Your task to perform on an android device: Search for flights from Mexico city to Zurich Image 0: 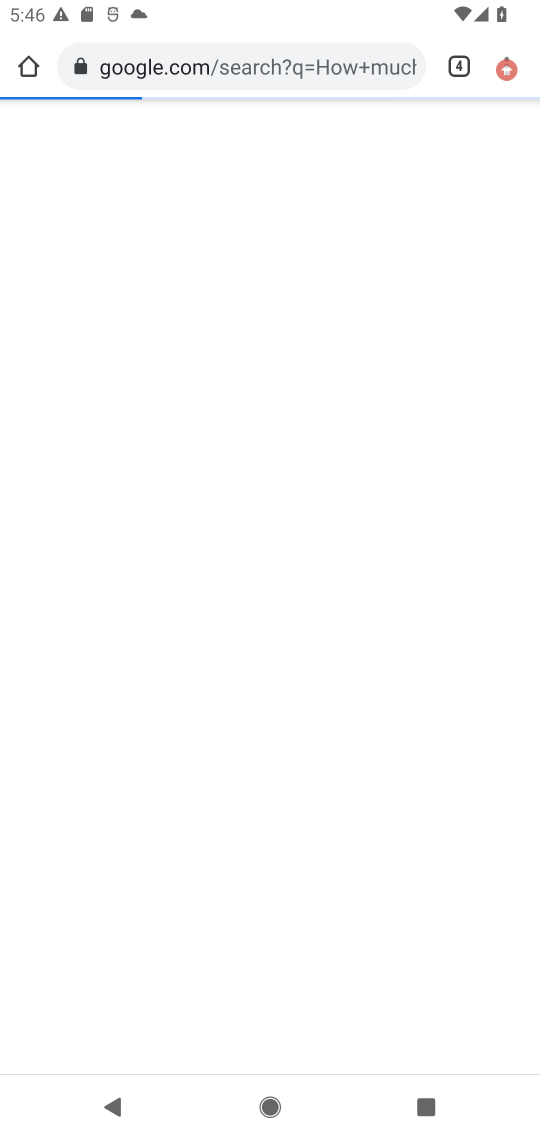
Step 0: drag from (290, 907) to (272, 462)
Your task to perform on an android device: Search for flights from Mexico city to Zurich Image 1: 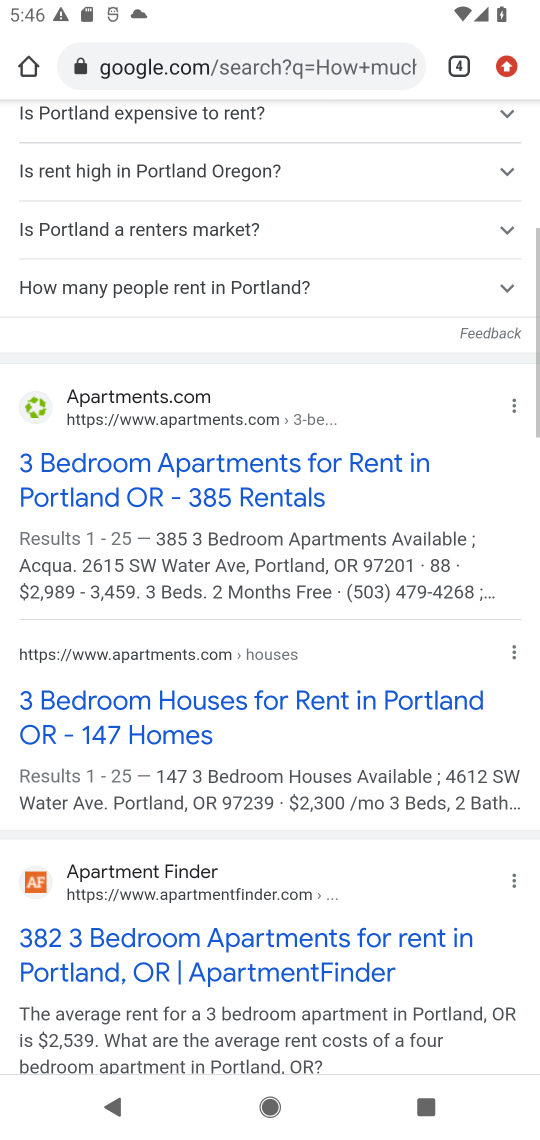
Step 1: press home button
Your task to perform on an android device: Search for flights from Mexico city to Zurich Image 2: 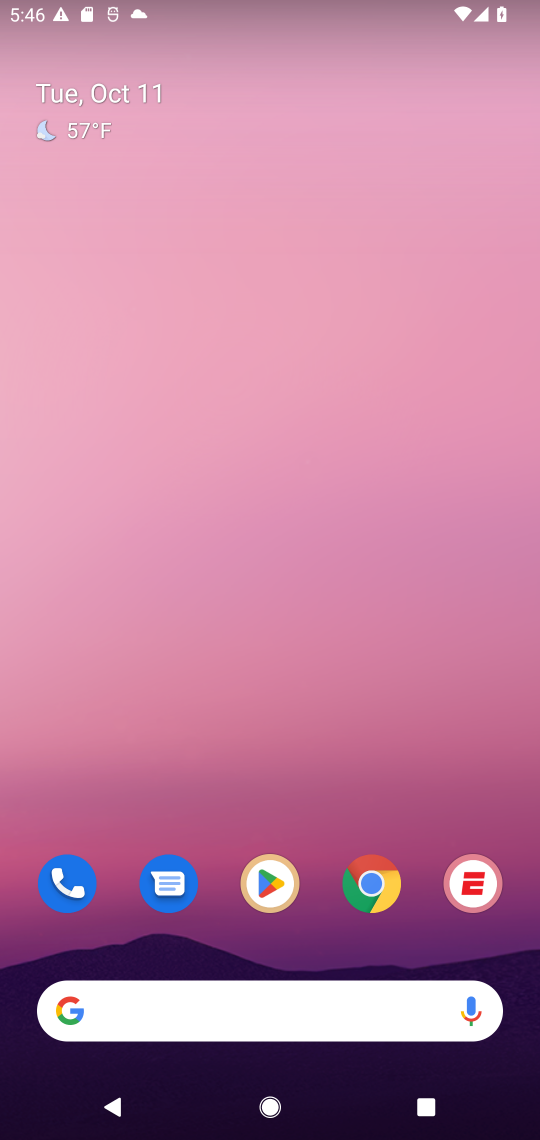
Step 2: drag from (293, 928) to (303, 633)
Your task to perform on an android device: Search for flights from Mexico city to Zurich Image 3: 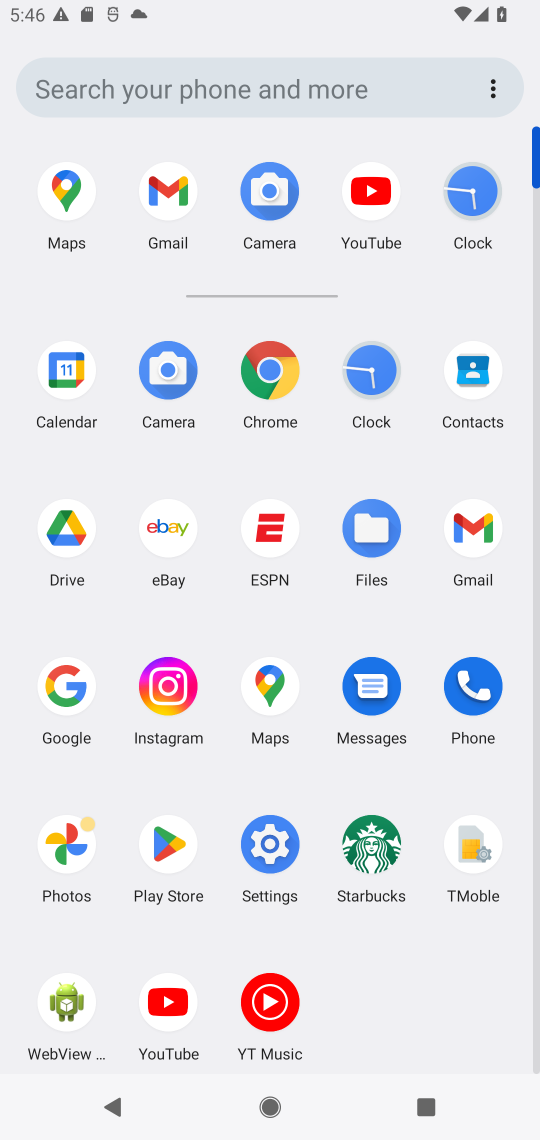
Step 3: click (273, 366)
Your task to perform on an android device: Search for flights from Mexico city to Zurich Image 4: 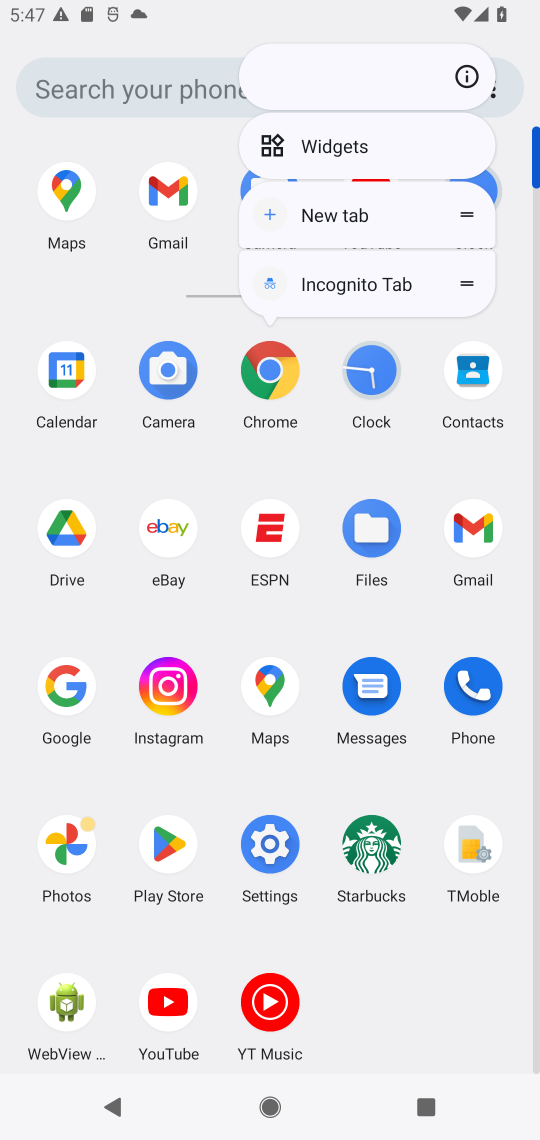
Step 4: click (256, 364)
Your task to perform on an android device: Search for flights from Mexico city to Zurich Image 5: 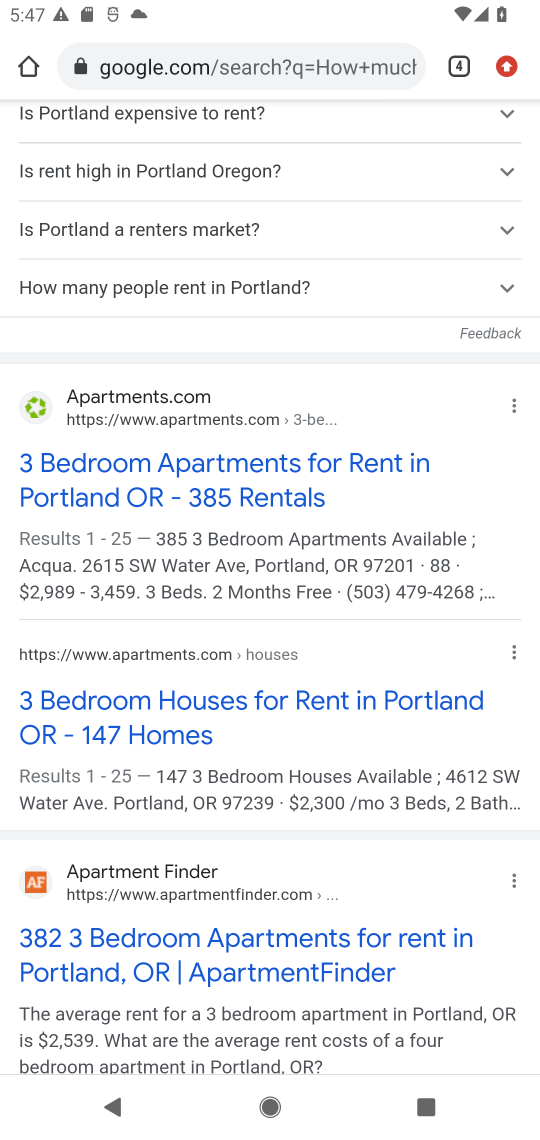
Step 5: click (273, 68)
Your task to perform on an android device: Search for flights from Mexico city to Zurich Image 6: 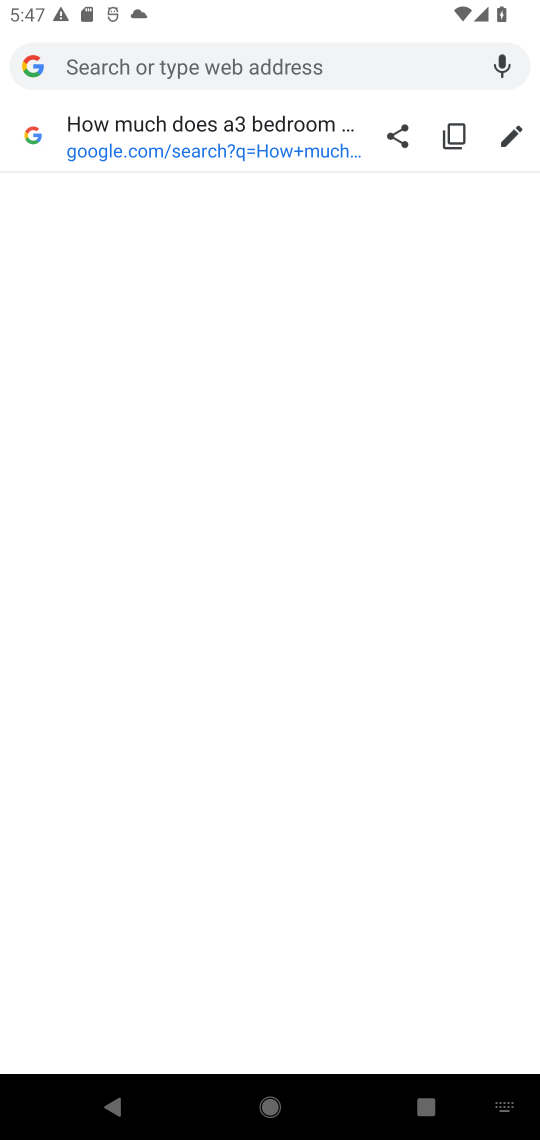
Step 6: type "Search for flight from Maxico city to Zurich"
Your task to perform on an android device: Search for flights from Mexico city to Zurich Image 7: 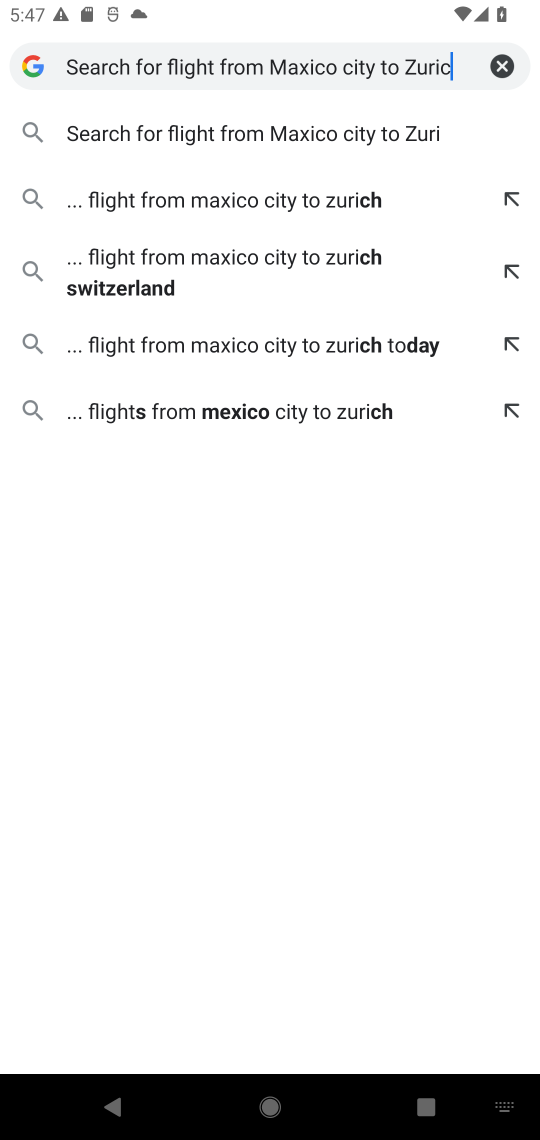
Step 7: press enter
Your task to perform on an android device: Search for flights from Mexico city to Zurich Image 8: 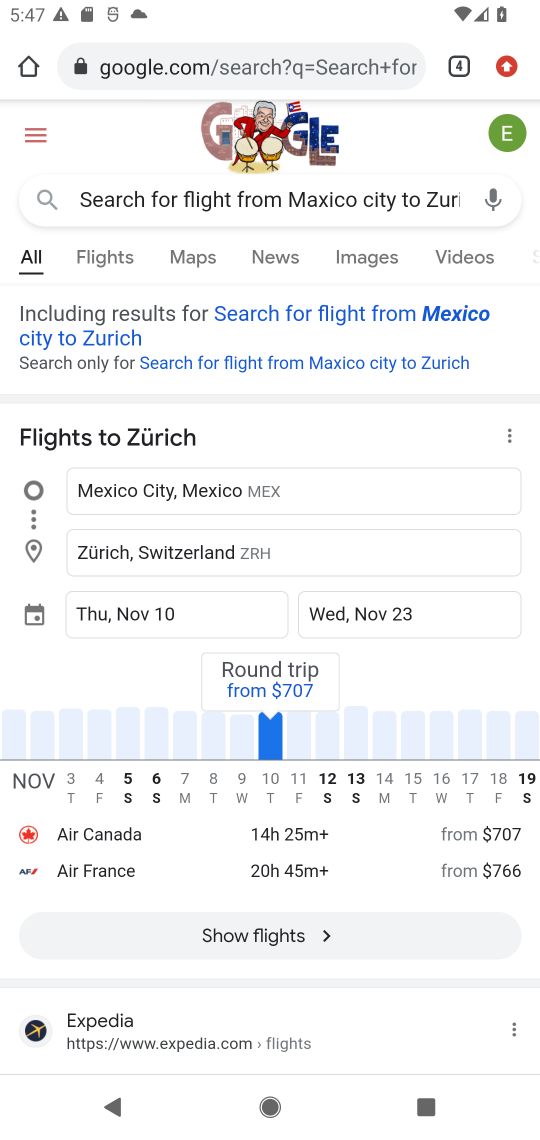
Step 8: task complete